Your task to perform on an android device: change the upload size in google photos Image 0: 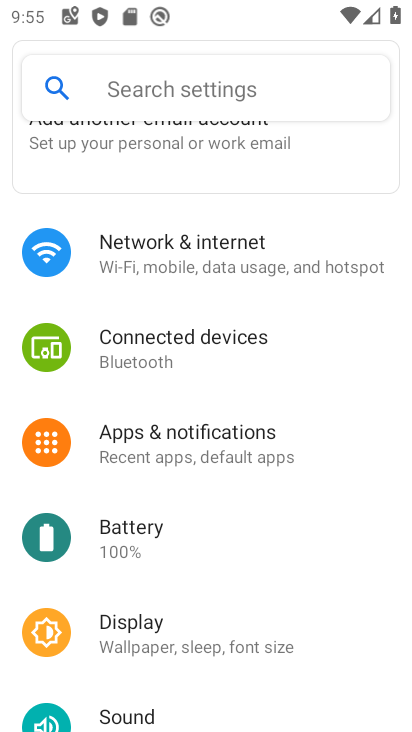
Step 0: press home button
Your task to perform on an android device: change the upload size in google photos Image 1: 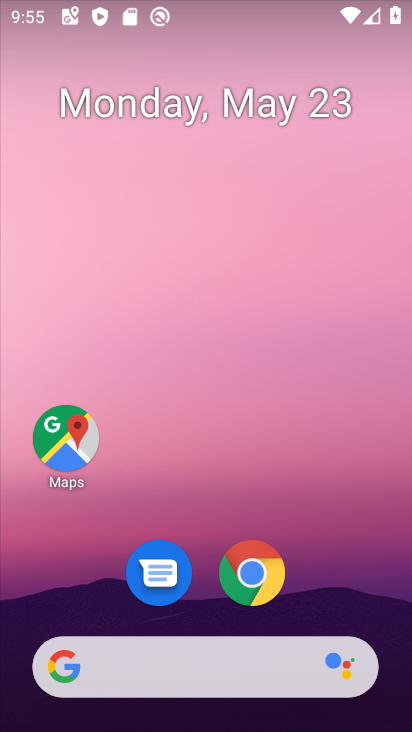
Step 1: drag from (380, 608) to (376, 145)
Your task to perform on an android device: change the upload size in google photos Image 2: 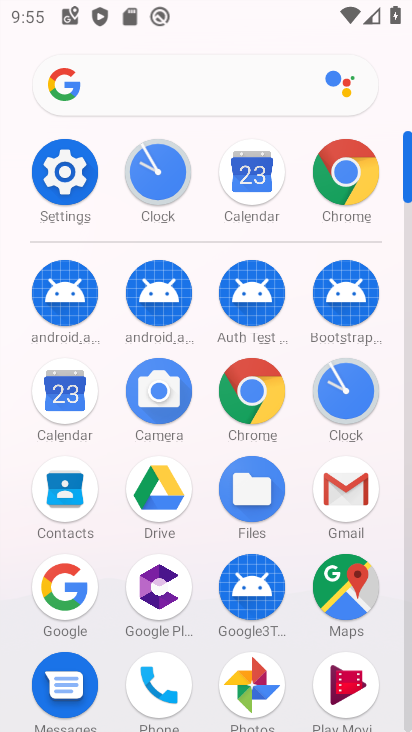
Step 2: drag from (386, 665) to (382, 475)
Your task to perform on an android device: change the upload size in google photos Image 3: 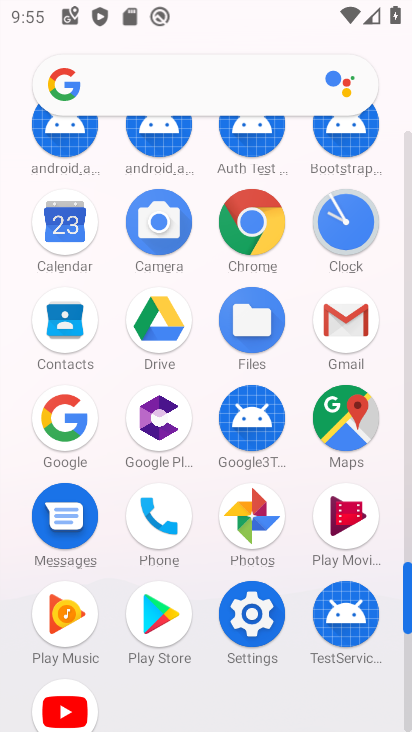
Step 3: click (256, 515)
Your task to perform on an android device: change the upload size in google photos Image 4: 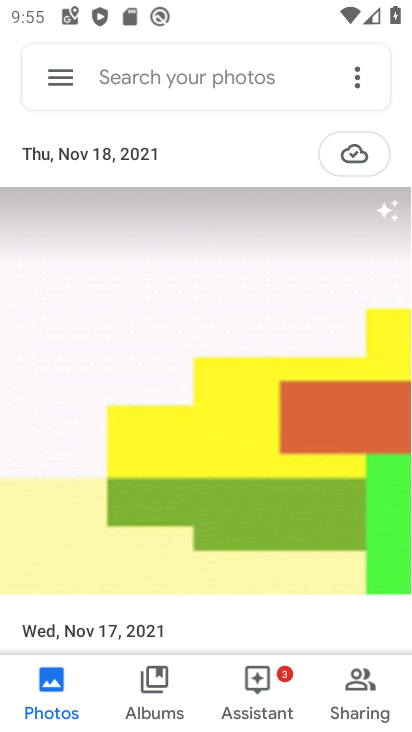
Step 4: click (65, 78)
Your task to perform on an android device: change the upload size in google photos Image 5: 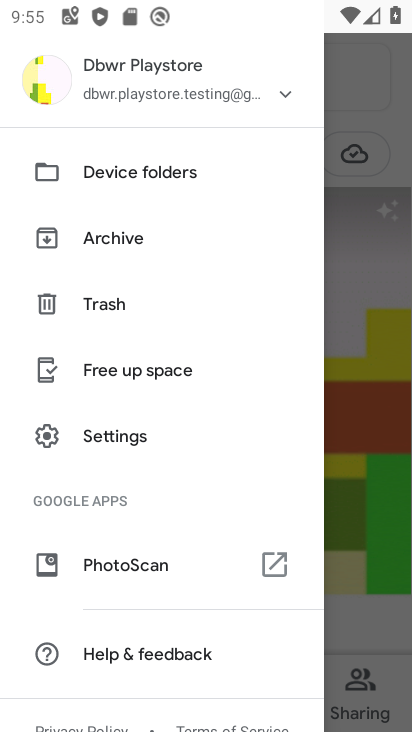
Step 5: drag from (208, 501) to (211, 372)
Your task to perform on an android device: change the upload size in google photos Image 6: 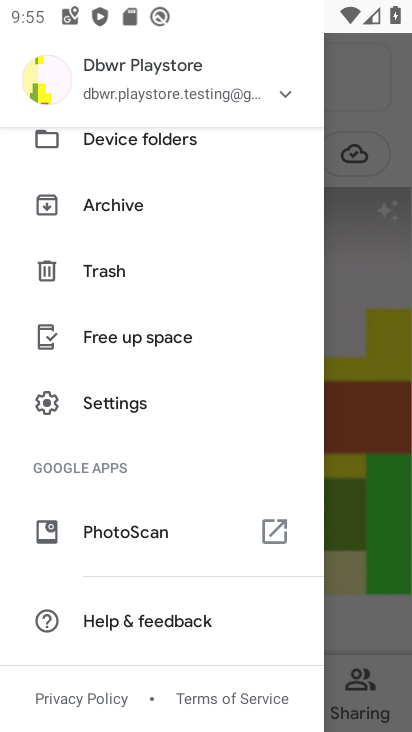
Step 6: drag from (225, 266) to (225, 429)
Your task to perform on an android device: change the upload size in google photos Image 7: 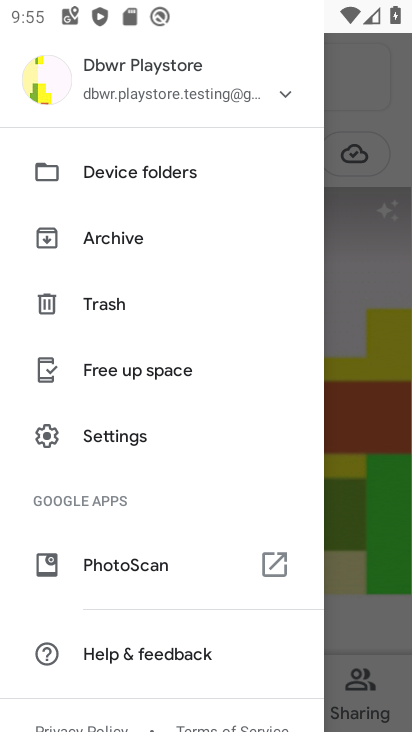
Step 7: click (135, 441)
Your task to perform on an android device: change the upload size in google photos Image 8: 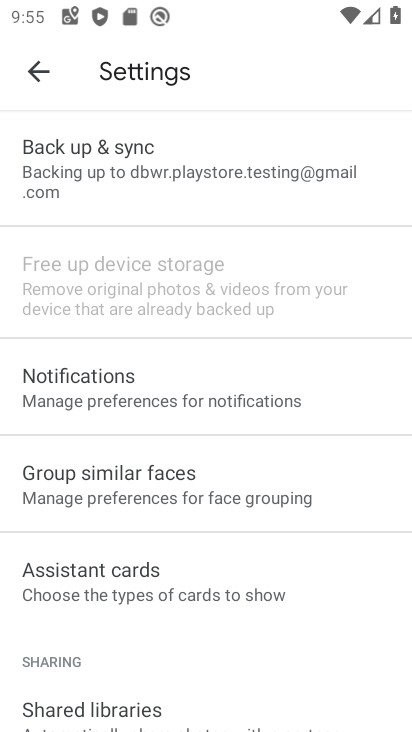
Step 8: drag from (226, 560) to (226, 474)
Your task to perform on an android device: change the upload size in google photos Image 9: 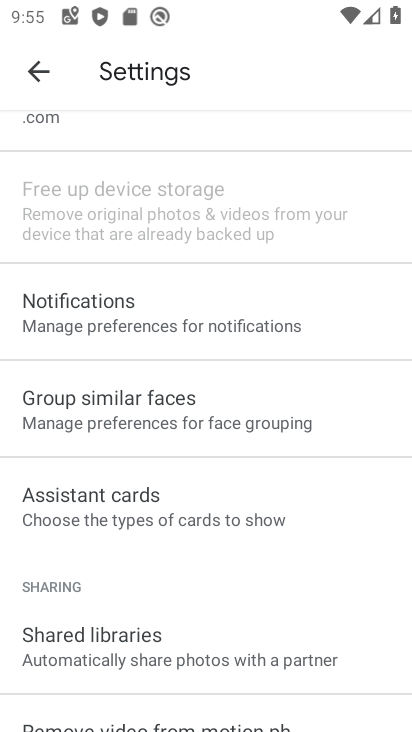
Step 9: drag from (260, 591) to (277, 487)
Your task to perform on an android device: change the upload size in google photos Image 10: 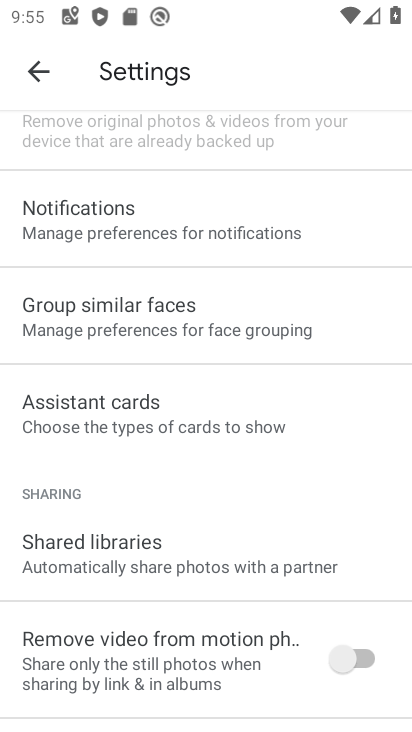
Step 10: drag from (309, 669) to (317, 518)
Your task to perform on an android device: change the upload size in google photos Image 11: 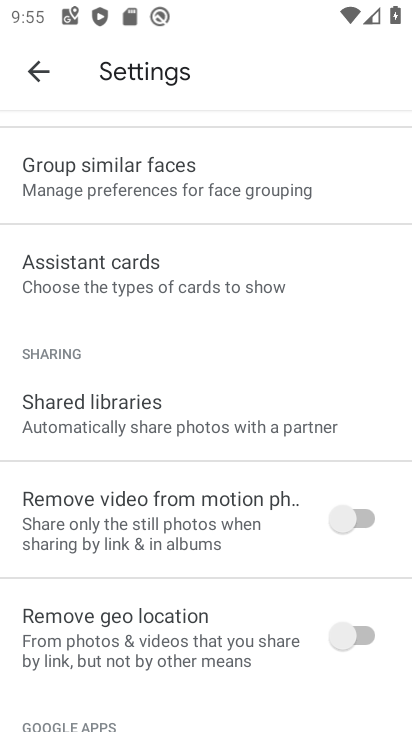
Step 11: drag from (292, 681) to (292, 584)
Your task to perform on an android device: change the upload size in google photos Image 12: 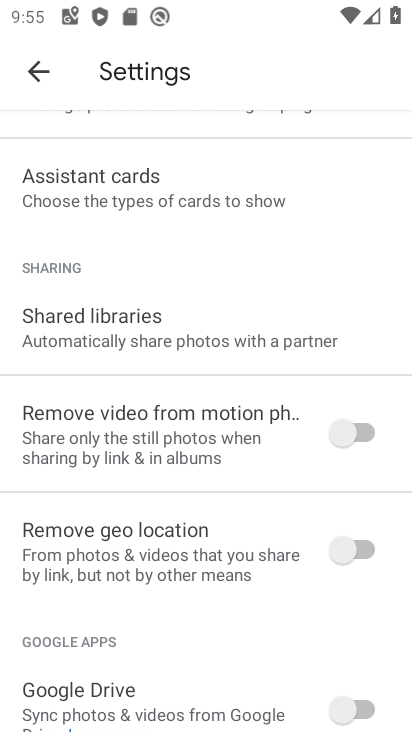
Step 12: drag from (291, 673) to (292, 580)
Your task to perform on an android device: change the upload size in google photos Image 13: 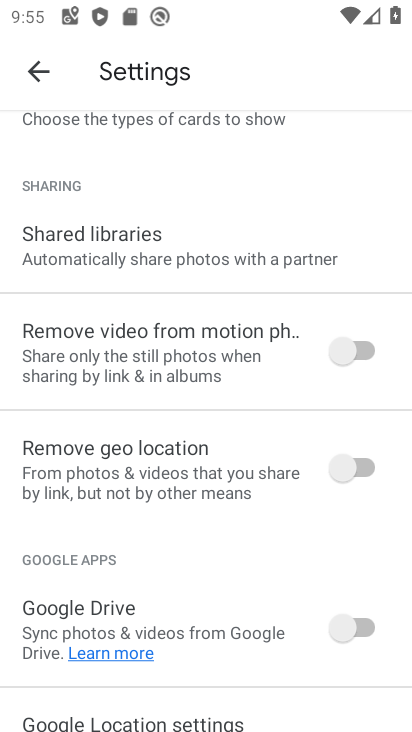
Step 13: drag from (288, 676) to (301, 565)
Your task to perform on an android device: change the upload size in google photos Image 14: 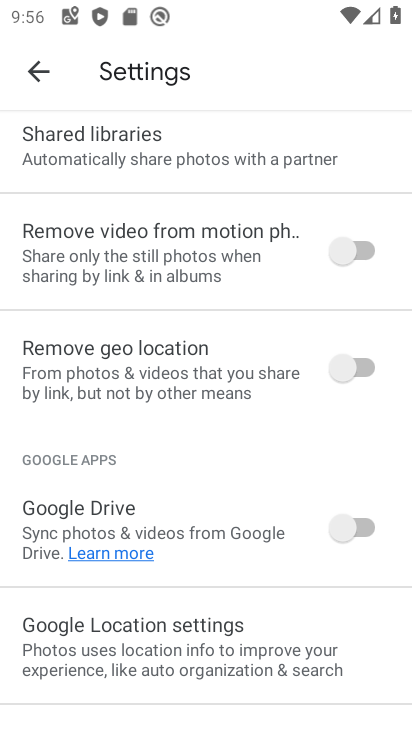
Step 14: drag from (290, 393) to (290, 520)
Your task to perform on an android device: change the upload size in google photos Image 15: 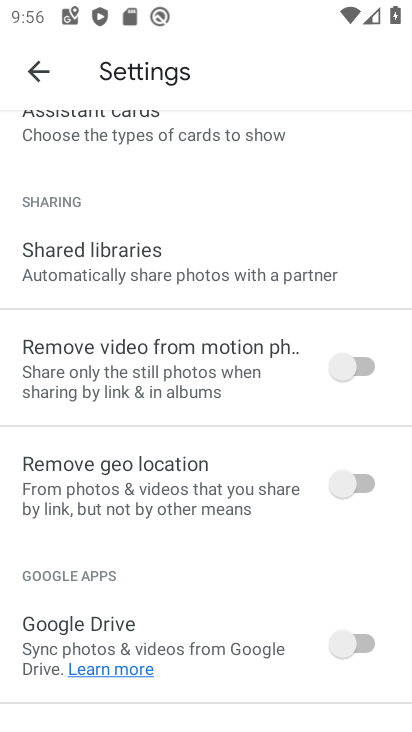
Step 15: drag from (290, 304) to (296, 444)
Your task to perform on an android device: change the upload size in google photos Image 16: 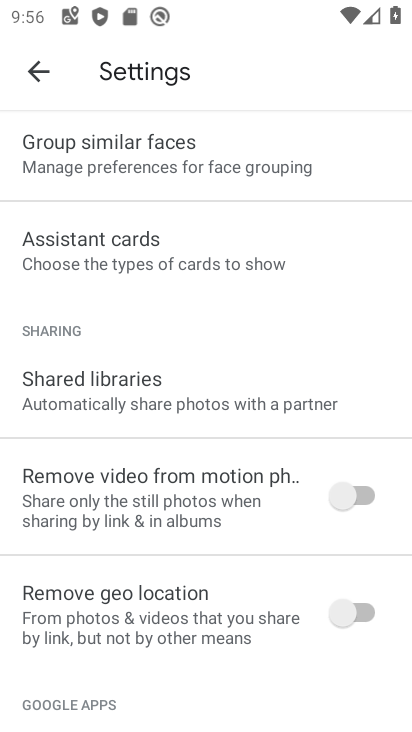
Step 16: drag from (297, 249) to (299, 376)
Your task to perform on an android device: change the upload size in google photos Image 17: 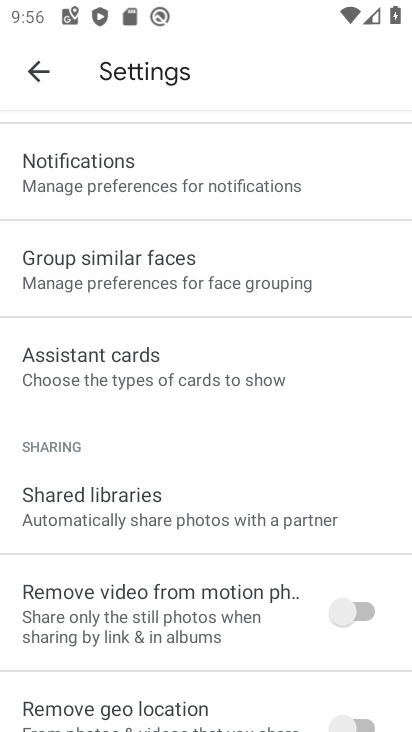
Step 17: drag from (311, 169) to (307, 354)
Your task to perform on an android device: change the upload size in google photos Image 18: 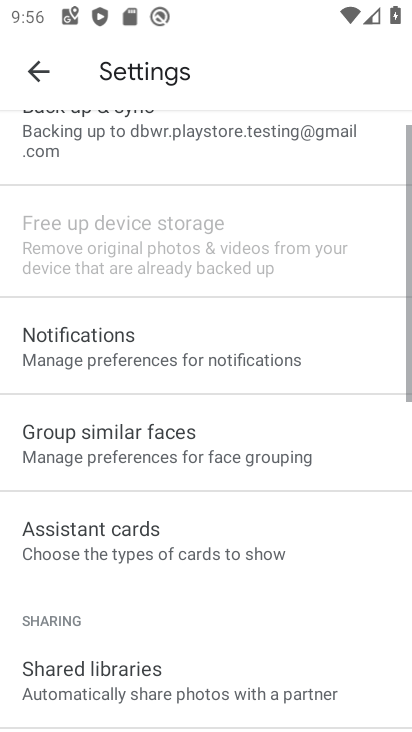
Step 18: click (287, 317)
Your task to perform on an android device: change the upload size in google photos Image 19: 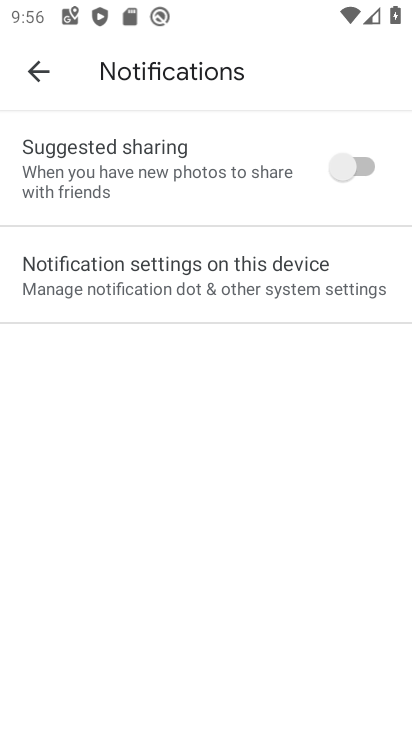
Step 19: drag from (307, 165) to (317, 333)
Your task to perform on an android device: change the upload size in google photos Image 20: 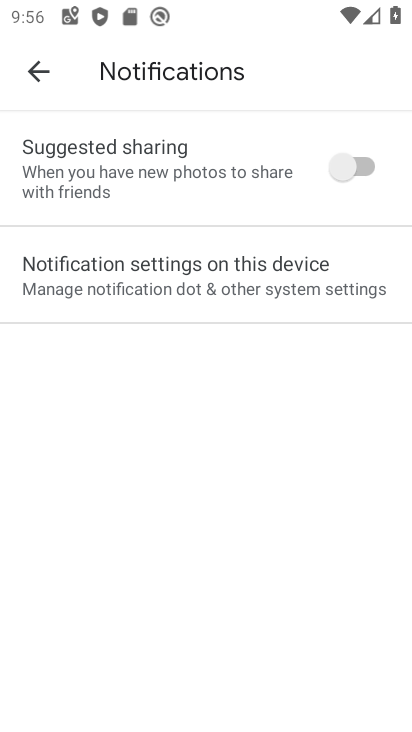
Step 20: click (32, 74)
Your task to perform on an android device: change the upload size in google photos Image 21: 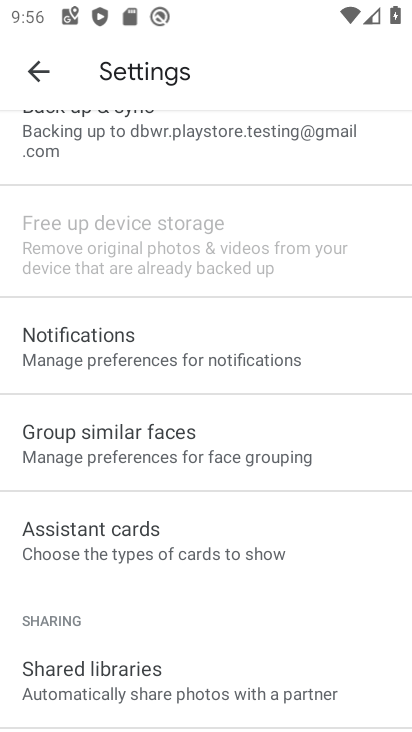
Step 21: drag from (265, 198) to (265, 323)
Your task to perform on an android device: change the upload size in google photos Image 22: 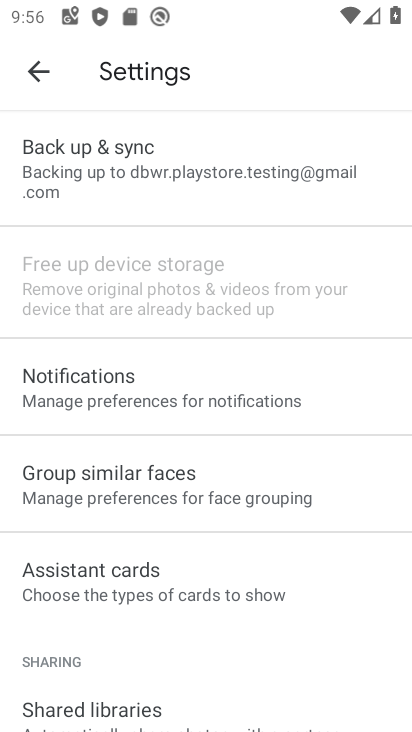
Step 22: click (199, 168)
Your task to perform on an android device: change the upload size in google photos Image 23: 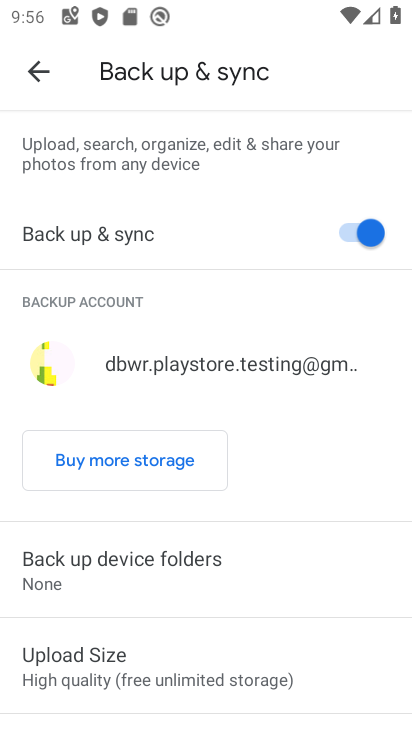
Step 23: drag from (310, 587) to (309, 486)
Your task to perform on an android device: change the upload size in google photos Image 24: 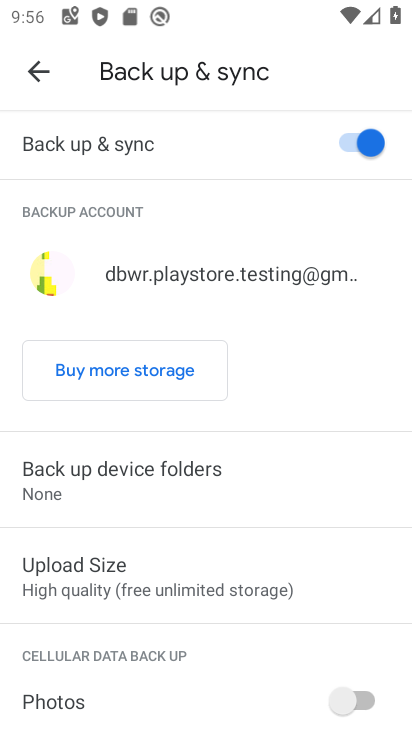
Step 24: drag from (303, 641) to (307, 519)
Your task to perform on an android device: change the upload size in google photos Image 25: 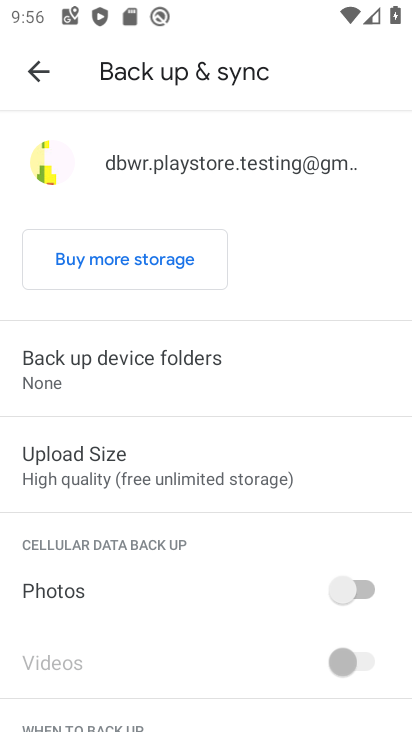
Step 25: drag from (267, 632) to (266, 528)
Your task to perform on an android device: change the upload size in google photos Image 26: 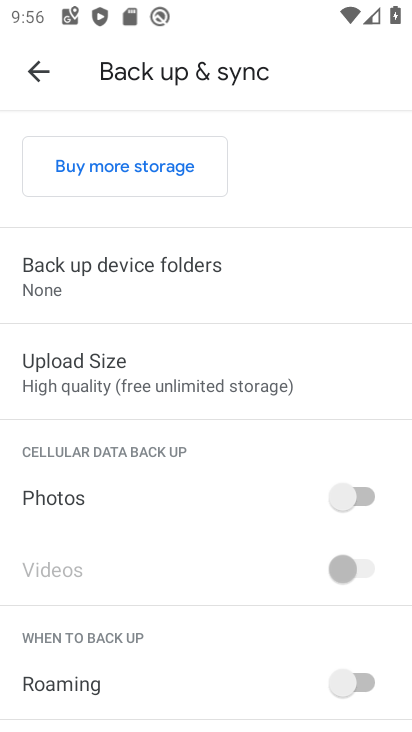
Step 26: drag from (246, 634) to (249, 519)
Your task to perform on an android device: change the upload size in google photos Image 27: 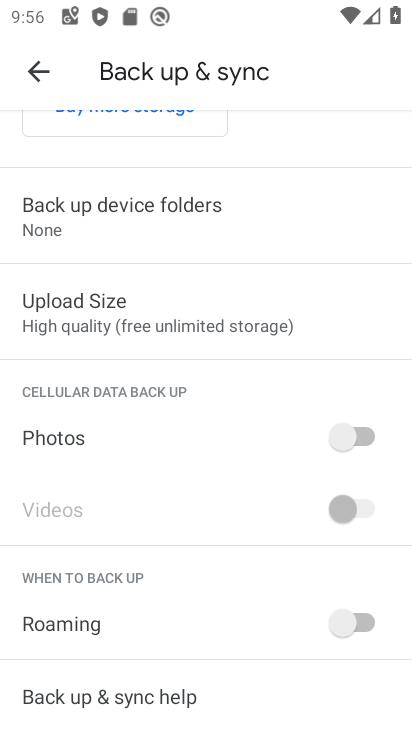
Step 27: click (158, 329)
Your task to perform on an android device: change the upload size in google photos Image 28: 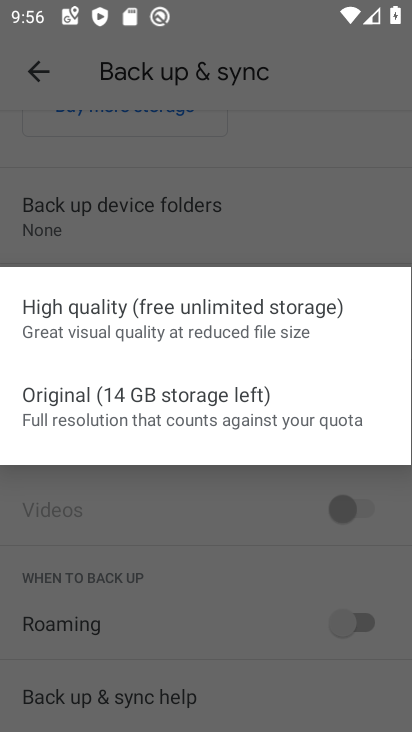
Step 28: click (200, 404)
Your task to perform on an android device: change the upload size in google photos Image 29: 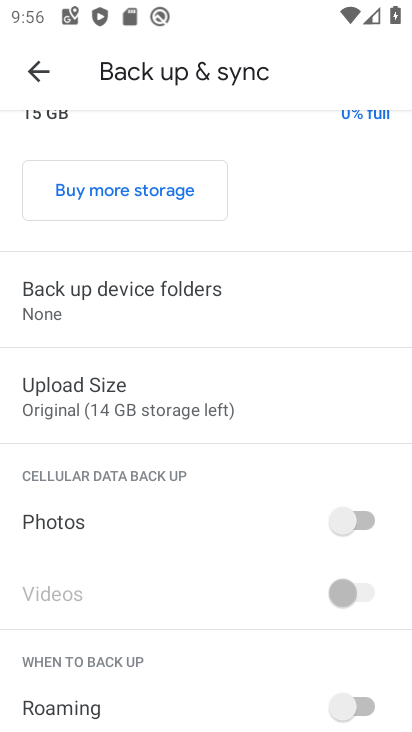
Step 29: task complete